Your task to perform on an android device: Show the shopping cart on amazon. Search for "amazon basics triple a" on amazon, select the first entry, and add it to the cart. Image 0: 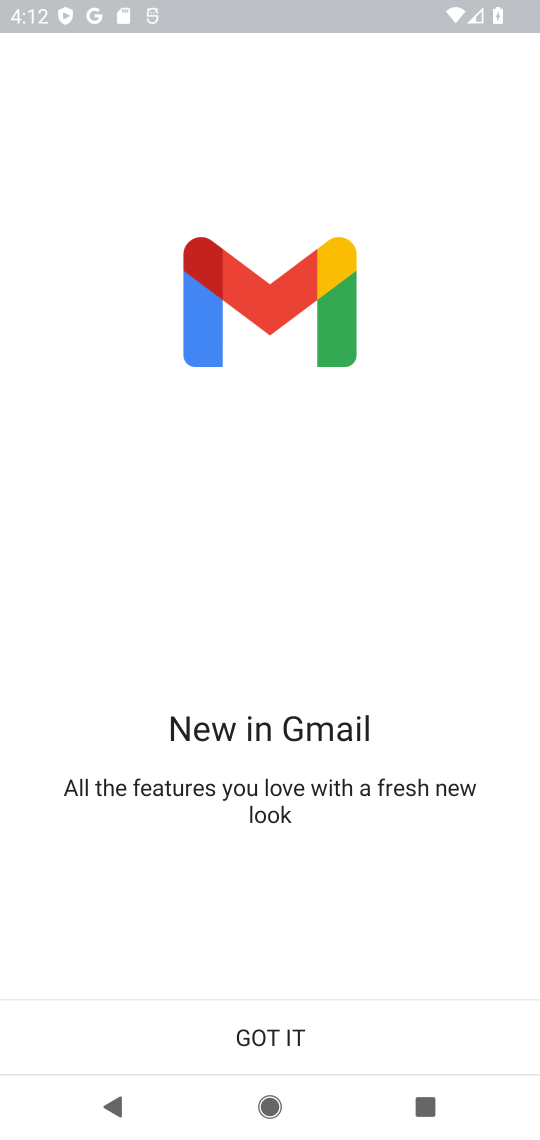
Step 0: press home button
Your task to perform on an android device: Show the shopping cart on amazon. Search for "amazon basics triple a" on amazon, select the first entry, and add it to the cart. Image 1: 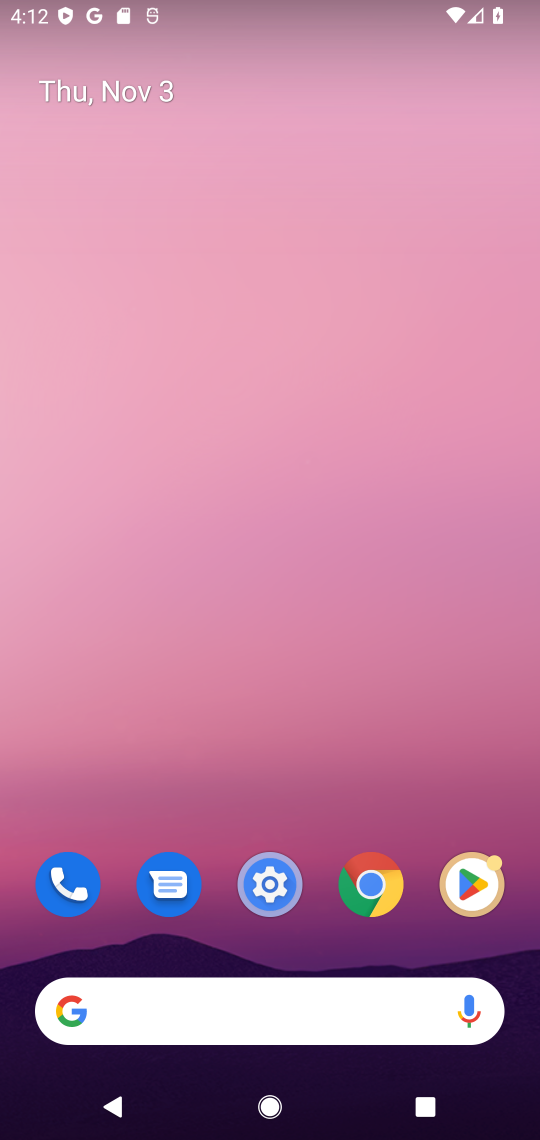
Step 1: press home button
Your task to perform on an android device: Show the shopping cart on amazon. Search for "amazon basics triple a" on amazon, select the first entry, and add it to the cart. Image 2: 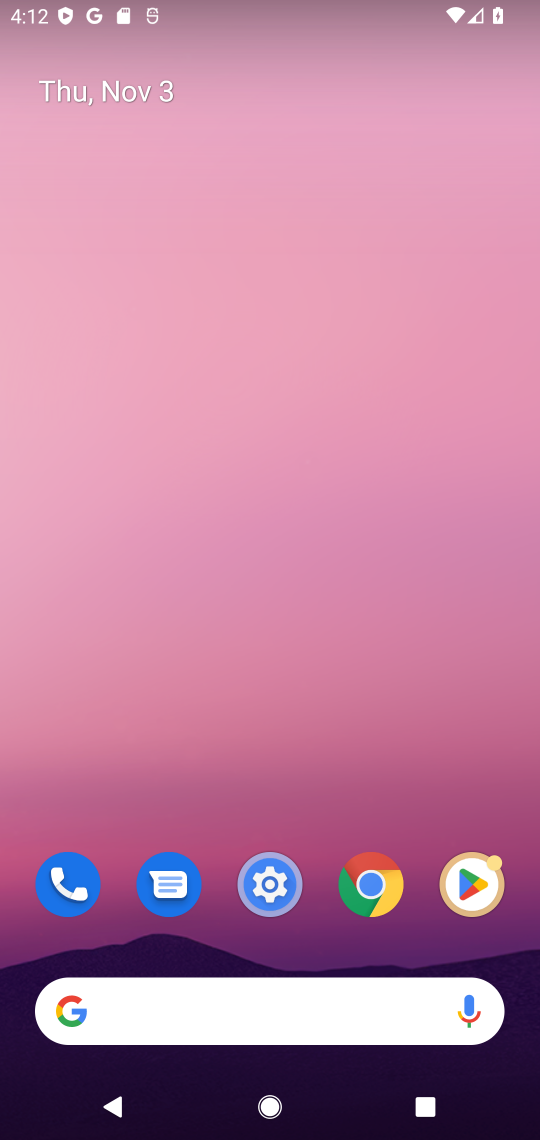
Step 2: click (98, 1012)
Your task to perform on an android device: Show the shopping cart on amazon. Search for "amazon basics triple a" on amazon, select the first entry, and add it to the cart. Image 3: 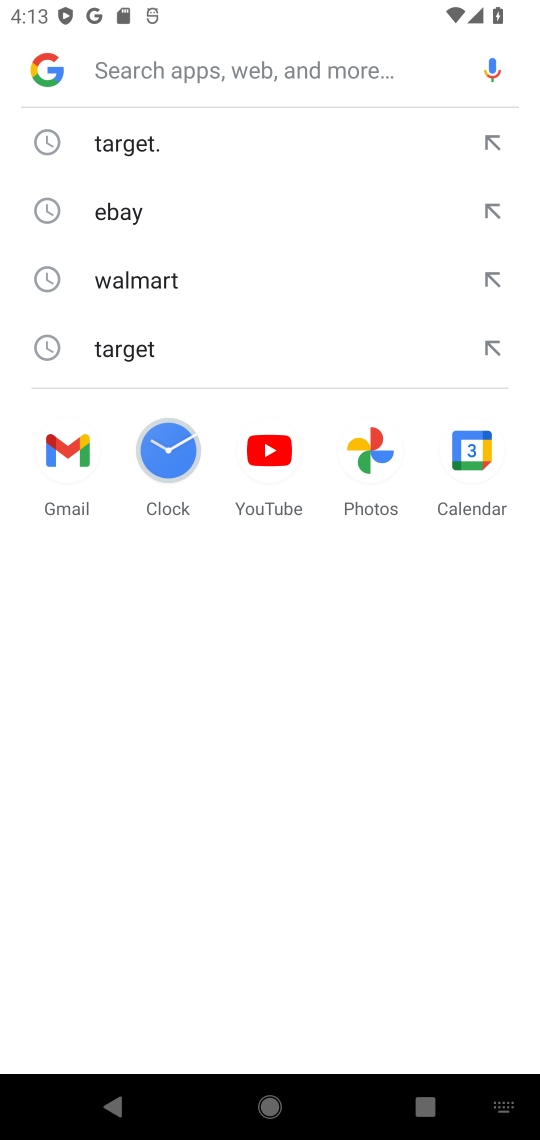
Step 3: type "amazon"
Your task to perform on an android device: Show the shopping cart on amazon. Search for "amazon basics triple a" on amazon, select the first entry, and add it to the cart. Image 4: 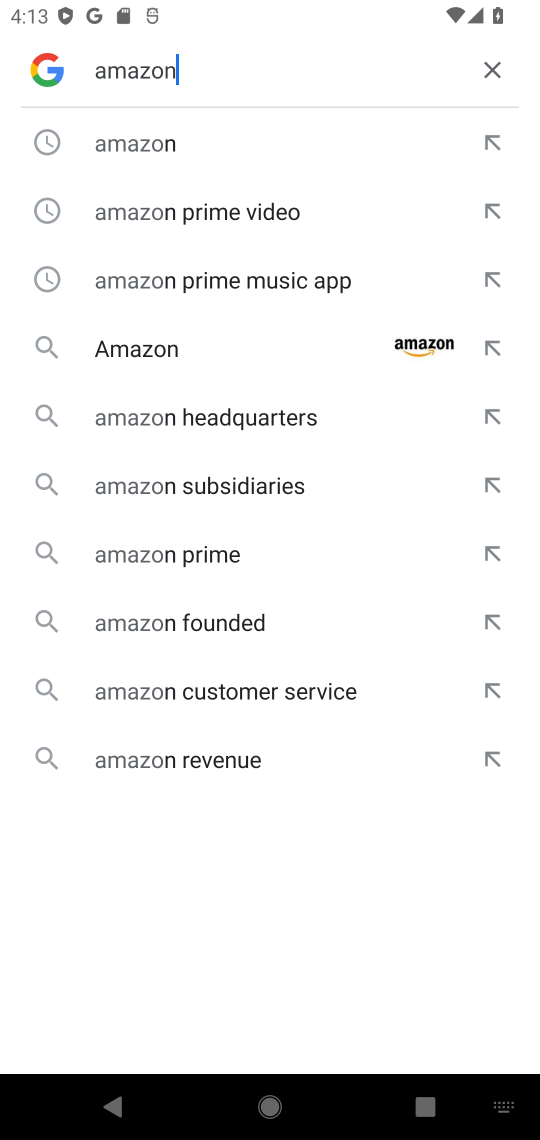
Step 4: press enter
Your task to perform on an android device: Show the shopping cart on amazon. Search for "amazon basics triple a" on amazon, select the first entry, and add it to the cart. Image 5: 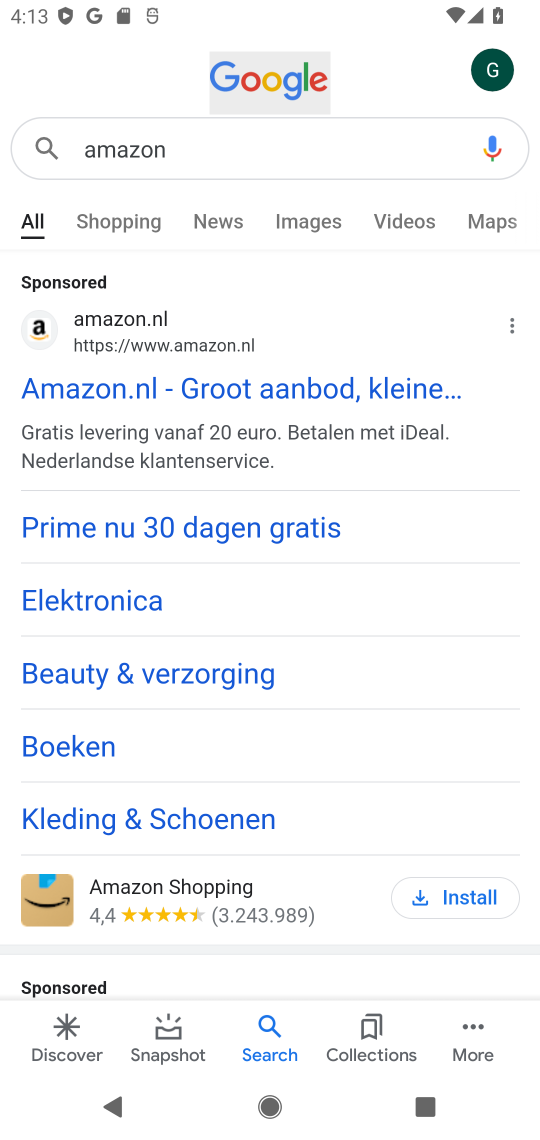
Step 5: click (127, 385)
Your task to perform on an android device: Show the shopping cart on amazon. Search for "amazon basics triple a" on amazon, select the first entry, and add it to the cart. Image 6: 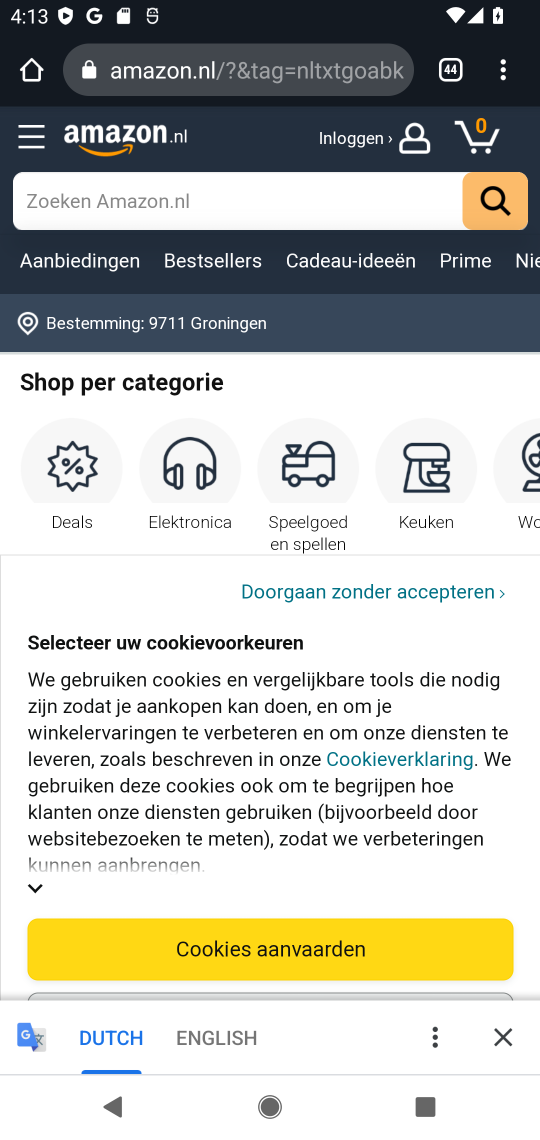
Step 6: click (480, 129)
Your task to perform on an android device: Show the shopping cart on amazon. Search for "amazon basics triple a" on amazon, select the first entry, and add it to the cart. Image 7: 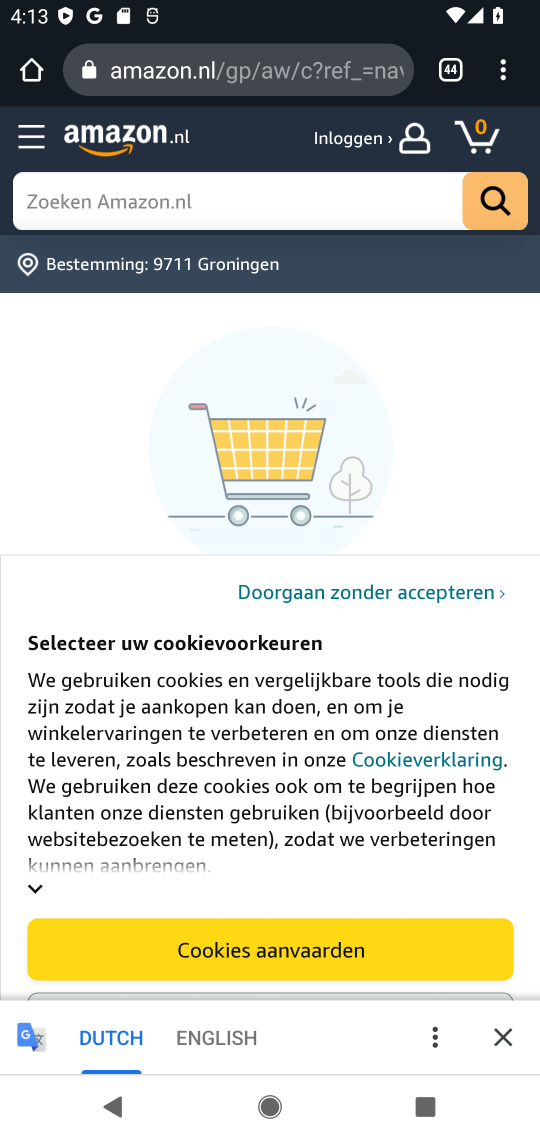
Step 7: click (82, 201)
Your task to perform on an android device: Show the shopping cart on amazon. Search for "amazon basics triple a" on amazon, select the first entry, and add it to the cart. Image 8: 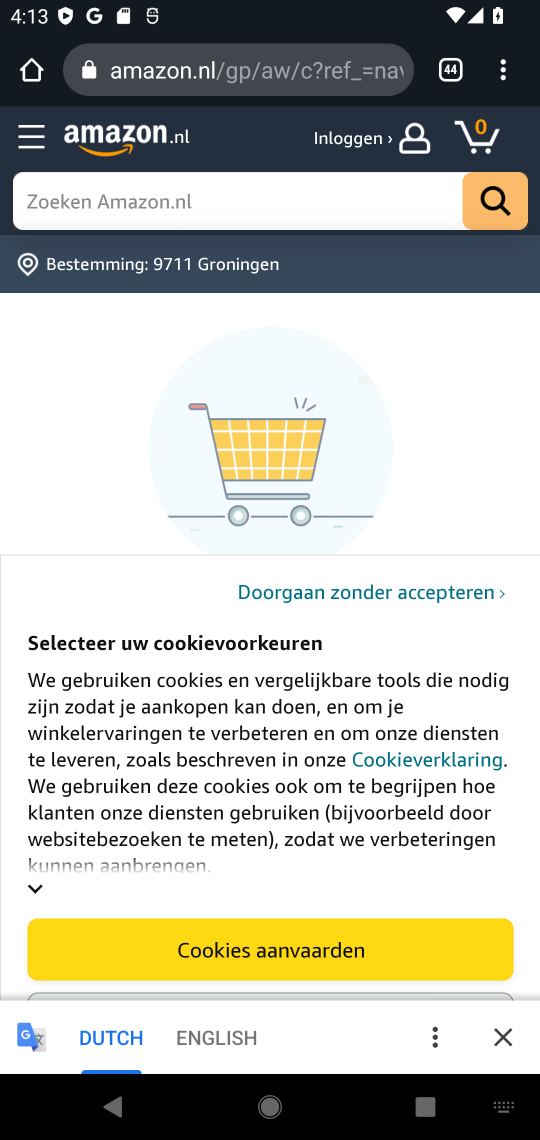
Step 8: type "amazon basics triple a"
Your task to perform on an android device: Show the shopping cart on amazon. Search for "amazon basics triple a" on amazon, select the first entry, and add it to the cart. Image 9: 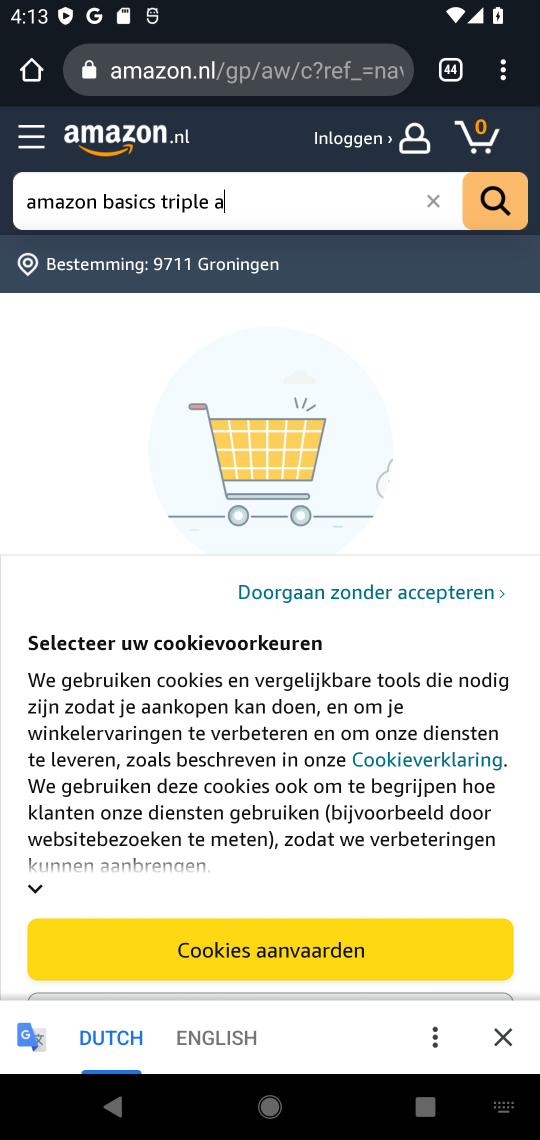
Step 9: click (491, 201)
Your task to perform on an android device: Show the shopping cart on amazon. Search for "amazon basics triple a" on amazon, select the first entry, and add it to the cart. Image 10: 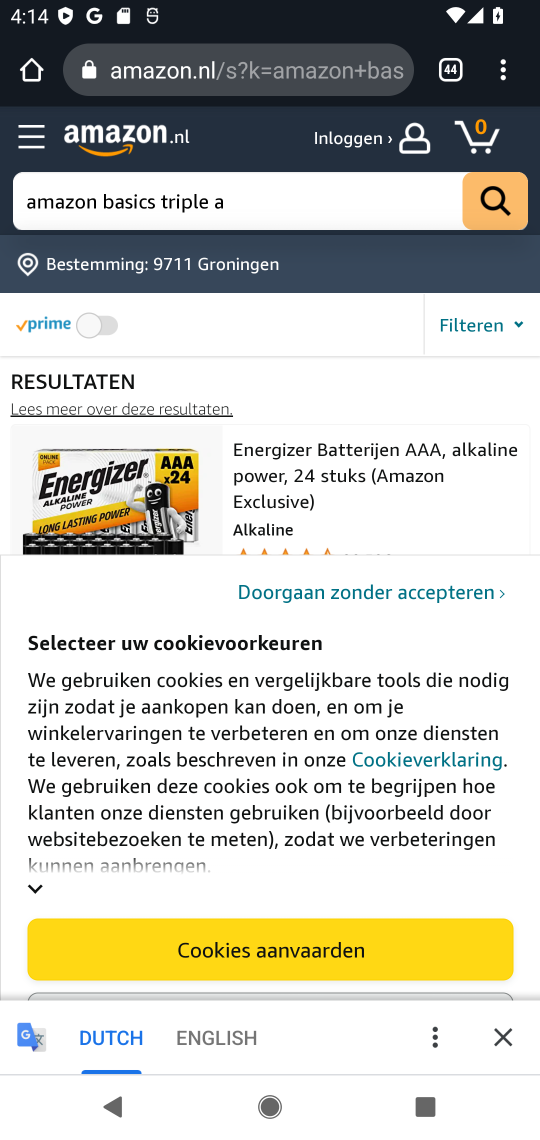
Step 10: click (375, 958)
Your task to perform on an android device: Show the shopping cart on amazon. Search for "amazon basics triple a" on amazon, select the first entry, and add it to the cart. Image 11: 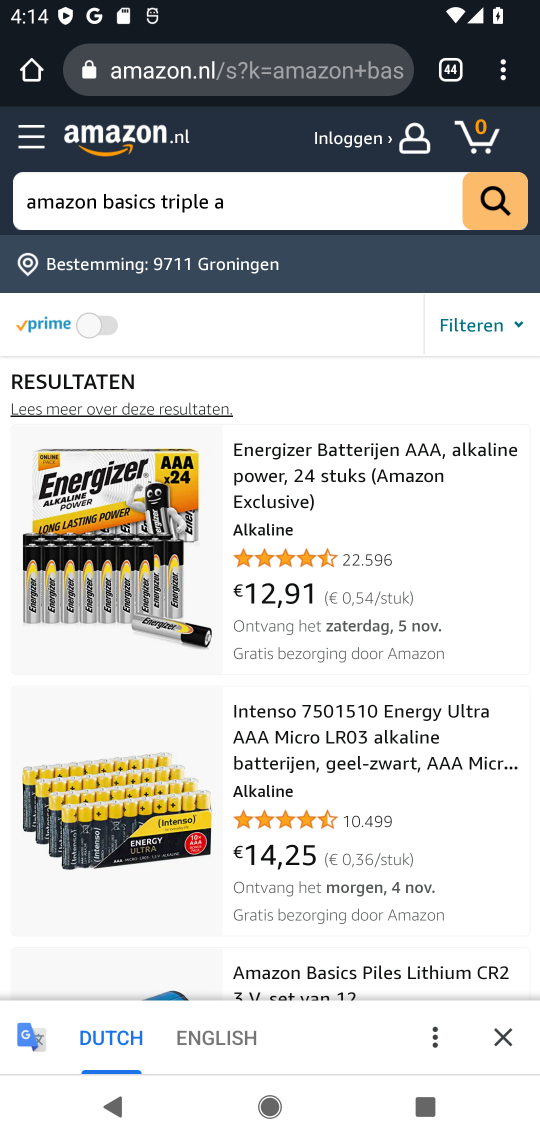
Step 11: drag from (391, 855) to (399, 663)
Your task to perform on an android device: Show the shopping cart on amazon. Search for "amazon basics triple a" on amazon, select the first entry, and add it to the cart. Image 12: 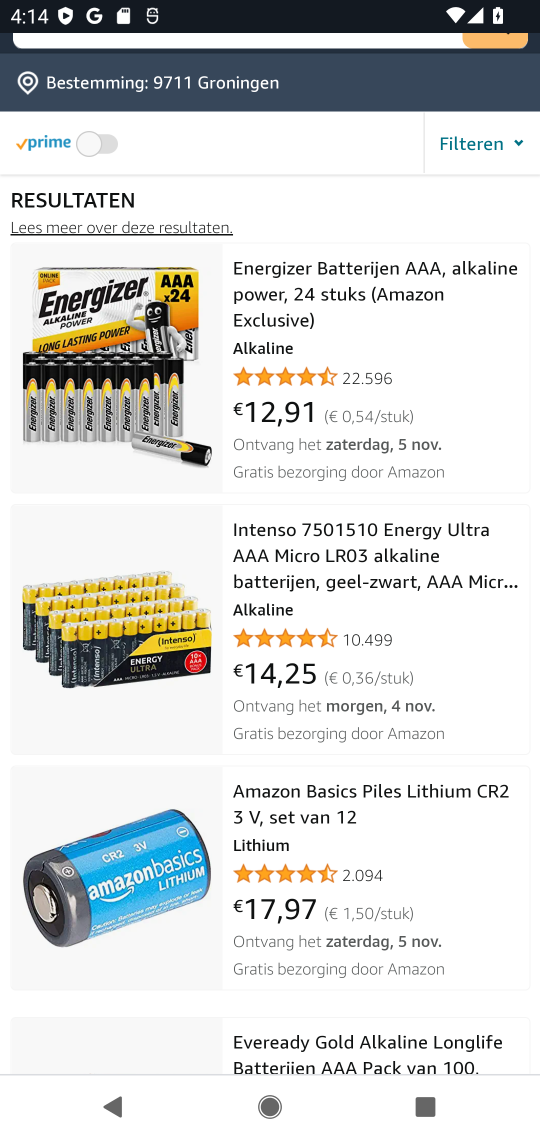
Step 12: drag from (388, 780) to (398, 709)
Your task to perform on an android device: Show the shopping cart on amazon. Search for "amazon basics triple a" on amazon, select the first entry, and add it to the cart. Image 13: 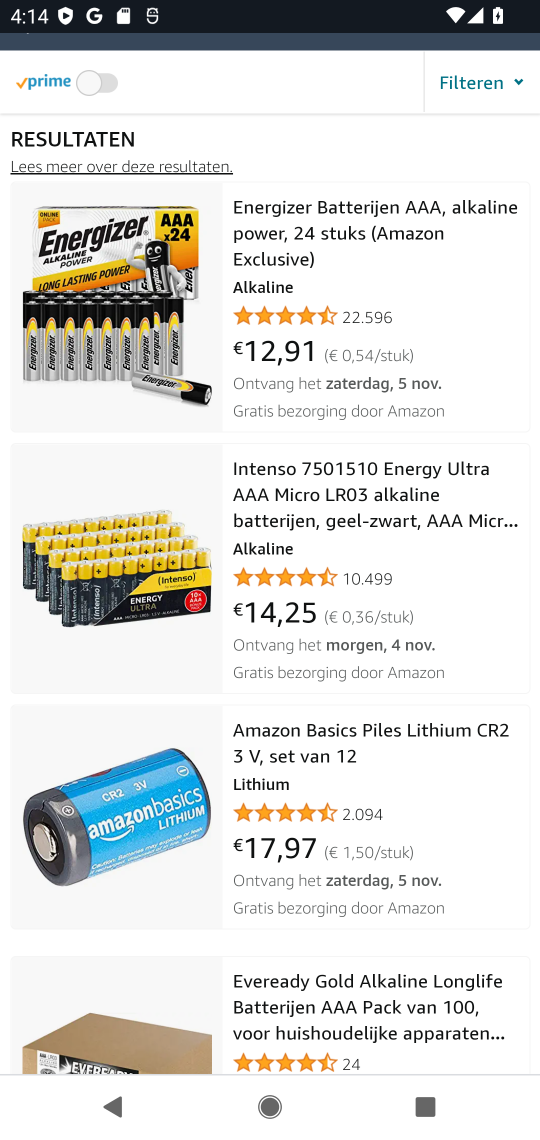
Step 13: drag from (351, 971) to (411, 504)
Your task to perform on an android device: Show the shopping cart on amazon. Search for "amazon basics triple a" on amazon, select the first entry, and add it to the cart. Image 14: 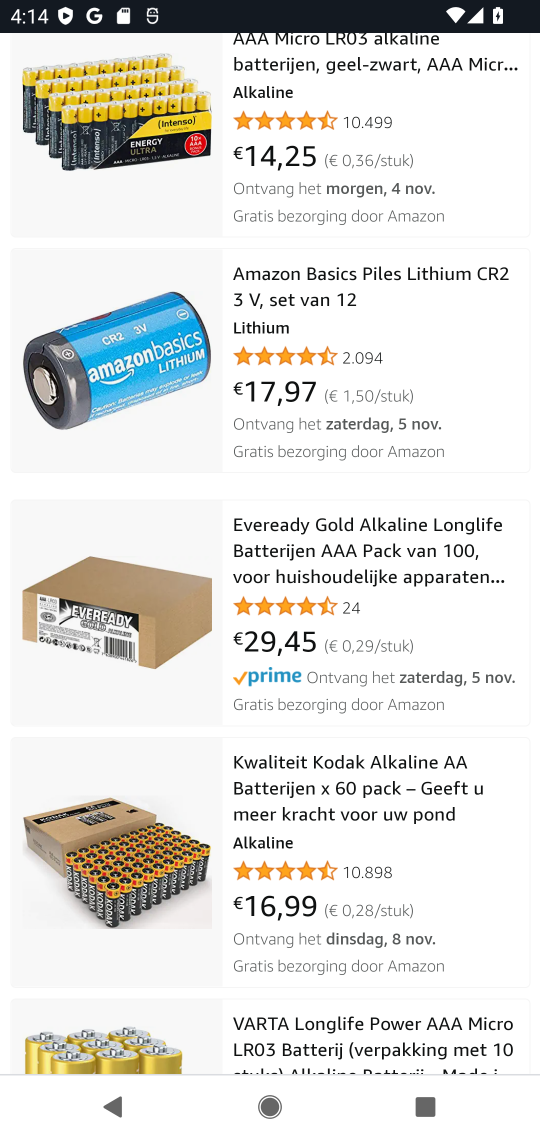
Step 14: drag from (359, 933) to (376, 398)
Your task to perform on an android device: Show the shopping cart on amazon. Search for "amazon basics triple a" on amazon, select the first entry, and add it to the cart. Image 15: 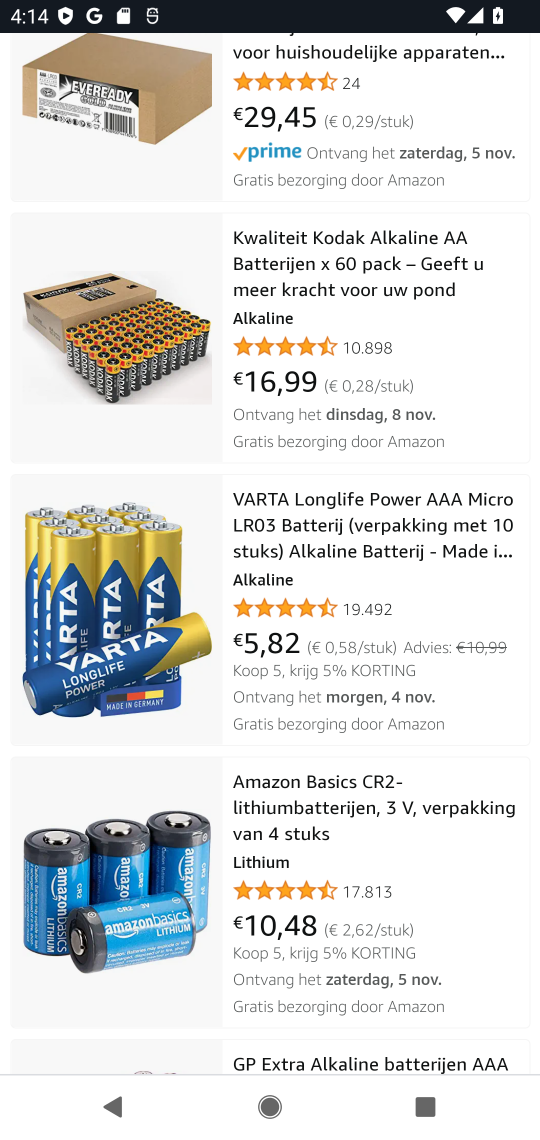
Step 15: drag from (382, 836) to (367, 493)
Your task to perform on an android device: Show the shopping cart on amazon. Search for "amazon basics triple a" on amazon, select the first entry, and add it to the cart. Image 16: 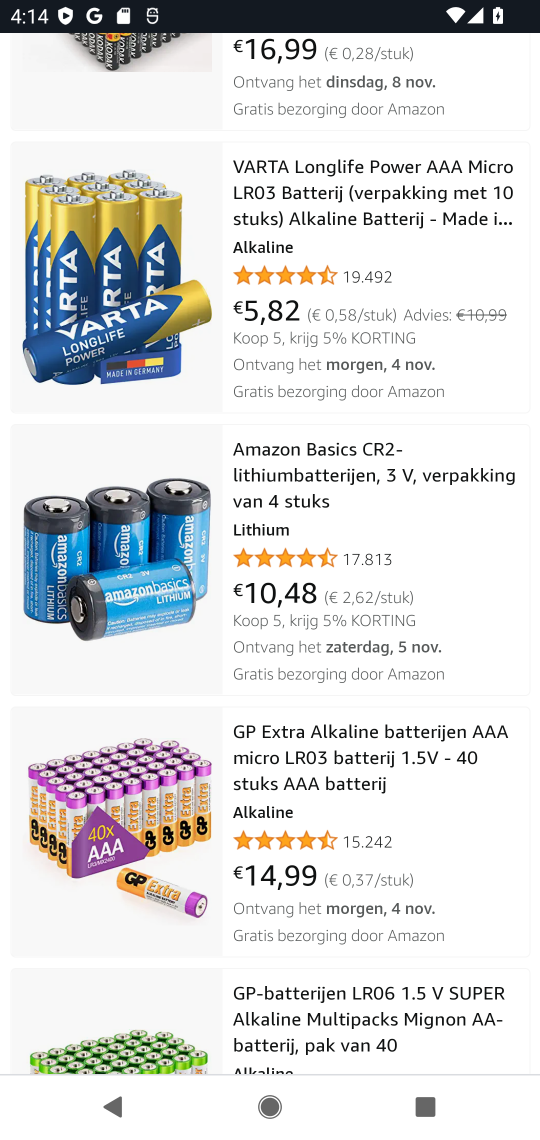
Step 16: drag from (352, 883) to (390, 524)
Your task to perform on an android device: Show the shopping cart on amazon. Search for "amazon basics triple a" on amazon, select the first entry, and add it to the cart. Image 17: 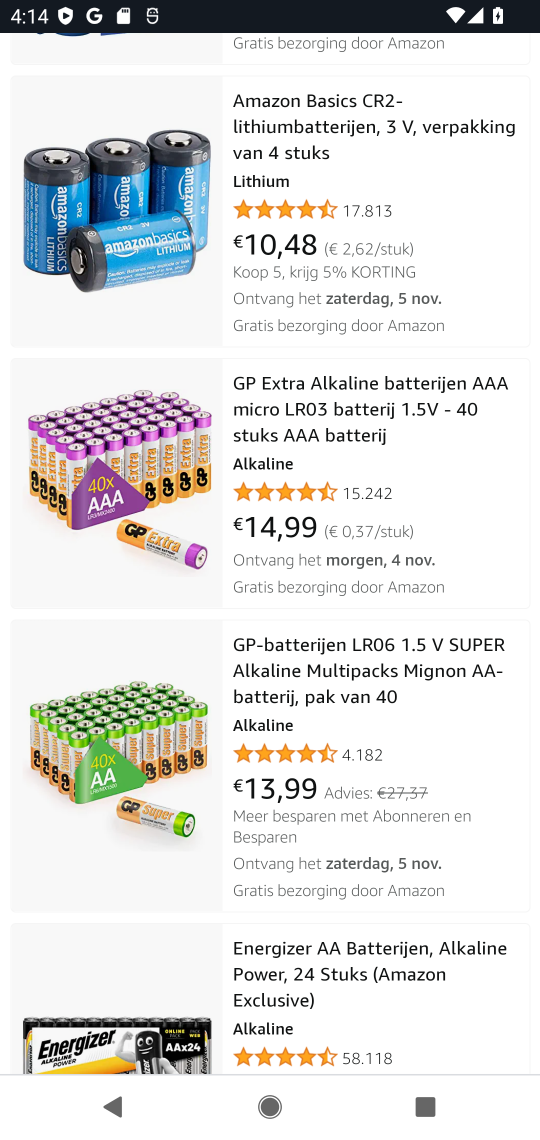
Step 17: drag from (354, 798) to (393, 437)
Your task to perform on an android device: Show the shopping cart on amazon. Search for "amazon basics triple a" on amazon, select the first entry, and add it to the cart. Image 18: 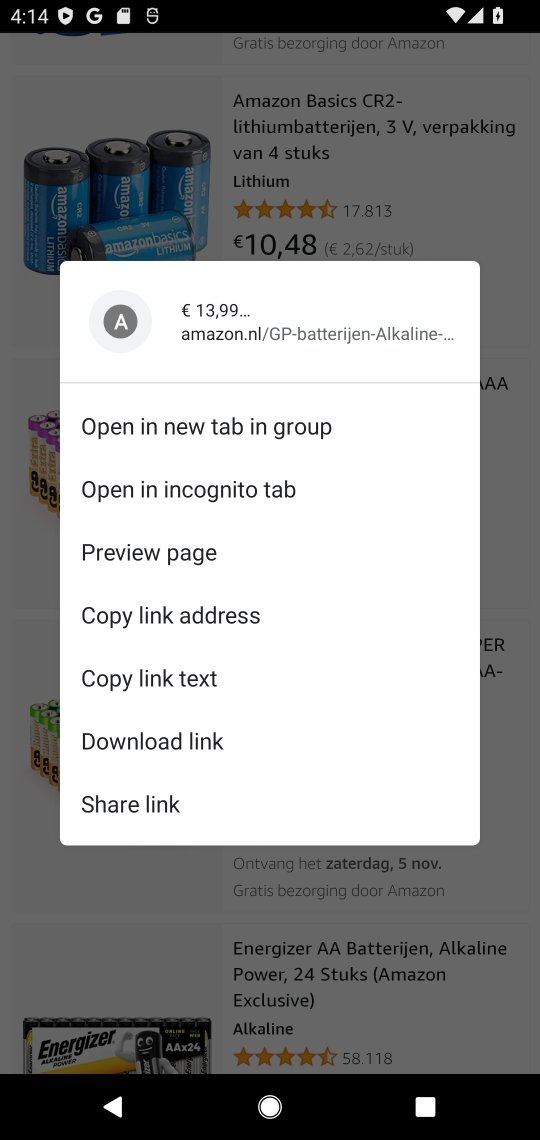
Step 18: click (510, 521)
Your task to perform on an android device: Show the shopping cart on amazon. Search for "amazon basics triple a" on amazon, select the first entry, and add it to the cart. Image 19: 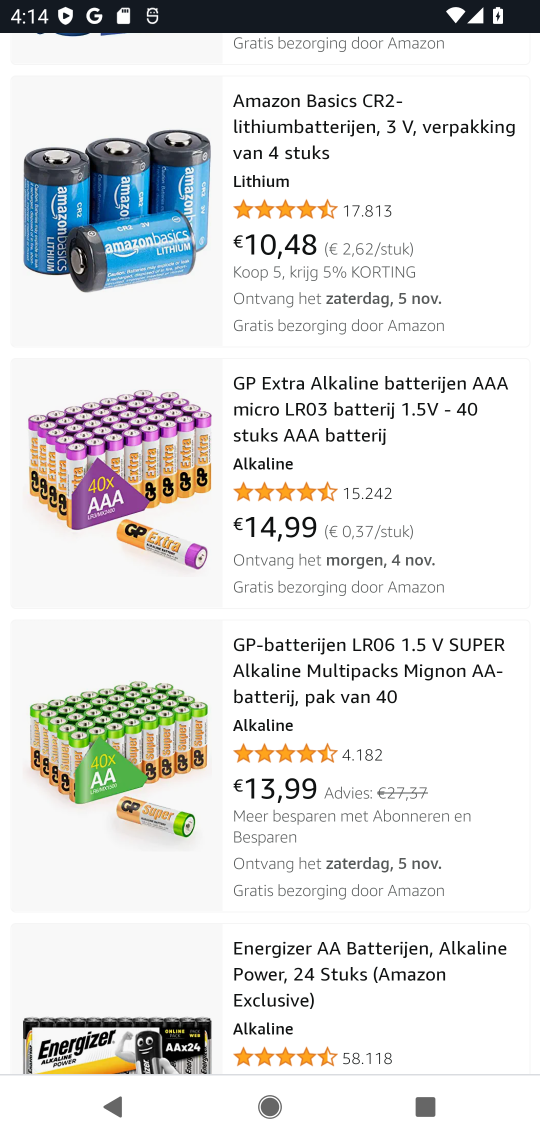
Step 19: task complete